Your task to perform on an android device: Check the news Image 0: 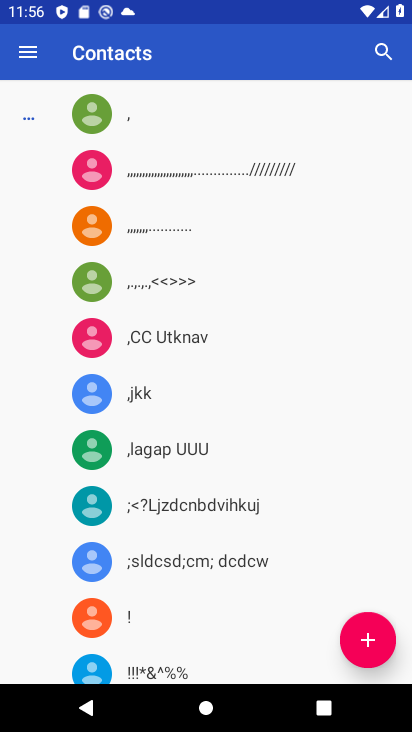
Step 0: press home button
Your task to perform on an android device: Check the news Image 1: 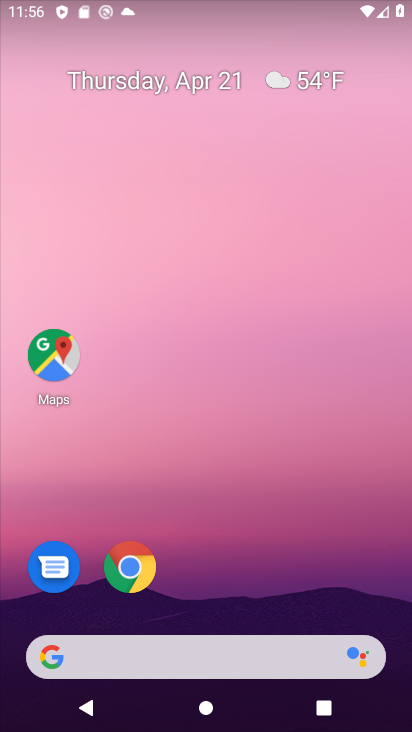
Step 1: drag from (257, 609) to (270, 153)
Your task to perform on an android device: Check the news Image 2: 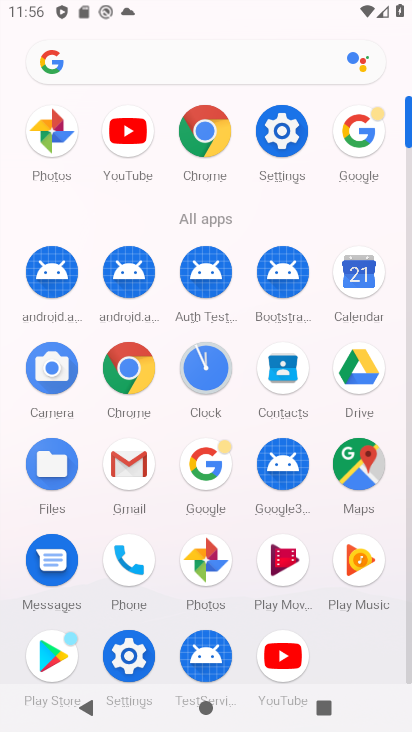
Step 2: click (201, 476)
Your task to perform on an android device: Check the news Image 3: 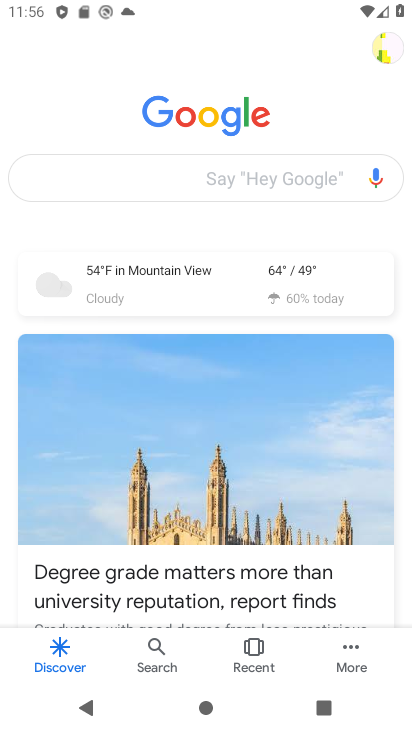
Step 3: click (264, 182)
Your task to perform on an android device: Check the news Image 4: 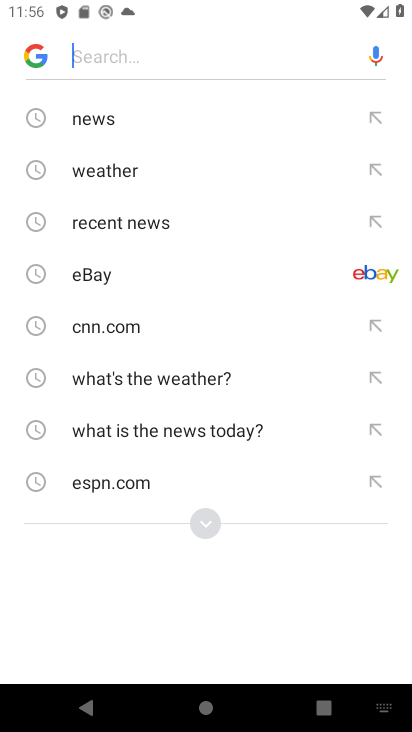
Step 4: click (196, 117)
Your task to perform on an android device: Check the news Image 5: 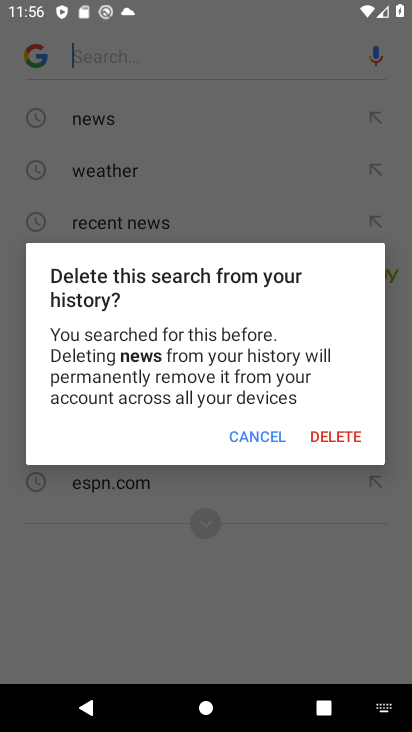
Step 5: click (249, 431)
Your task to perform on an android device: Check the news Image 6: 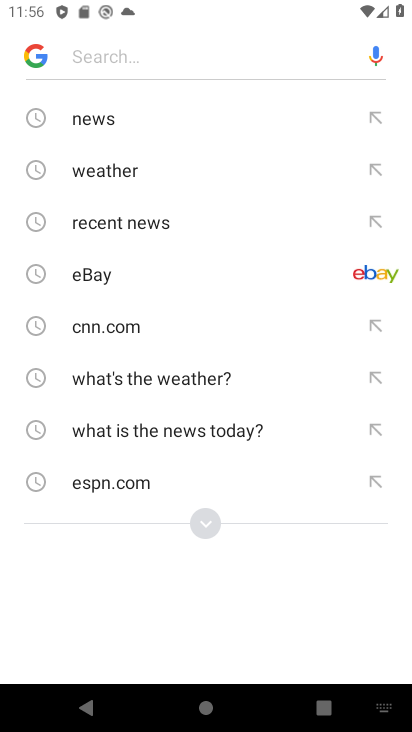
Step 6: click (237, 117)
Your task to perform on an android device: Check the news Image 7: 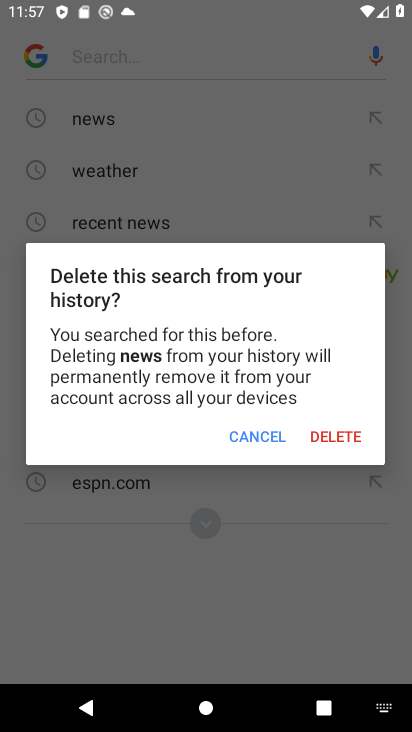
Step 7: click (273, 440)
Your task to perform on an android device: Check the news Image 8: 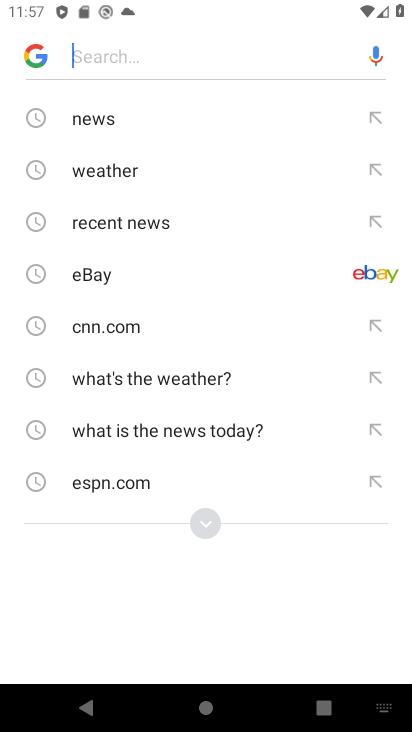
Step 8: click (383, 121)
Your task to perform on an android device: Check the news Image 9: 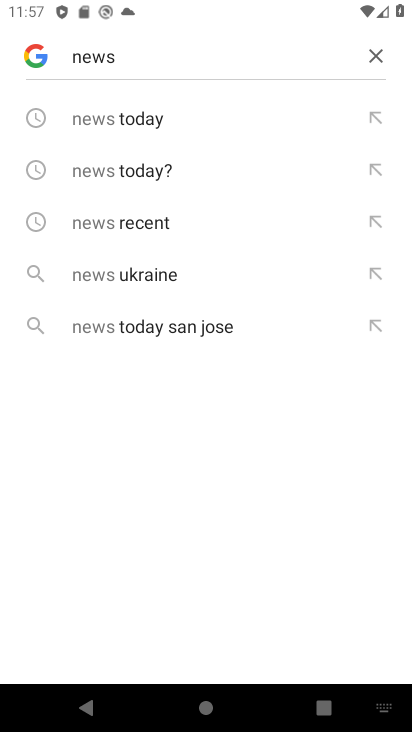
Step 9: click (188, 123)
Your task to perform on an android device: Check the news Image 10: 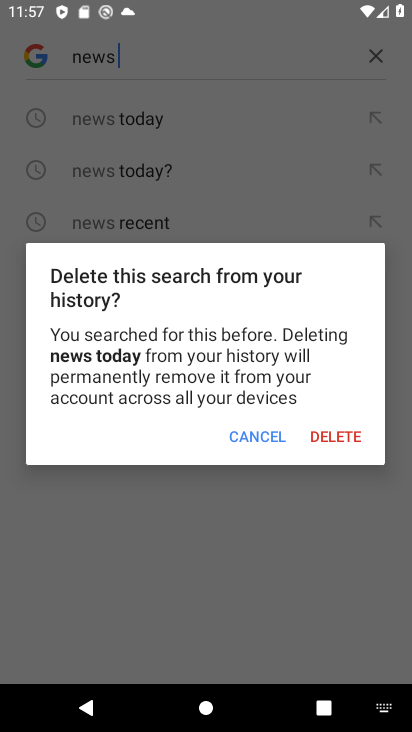
Step 10: click (267, 439)
Your task to perform on an android device: Check the news Image 11: 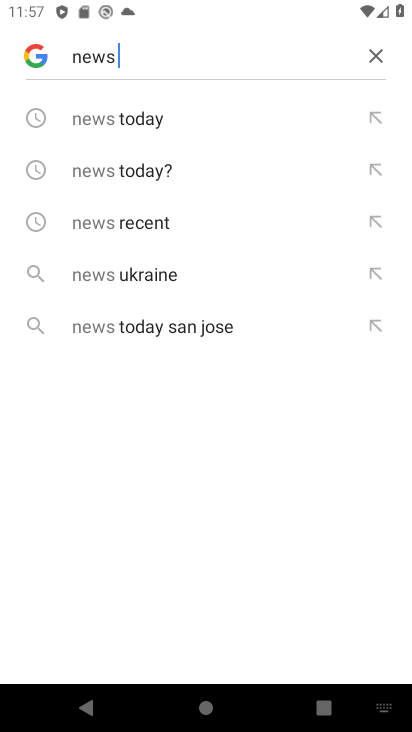
Step 11: click (373, 120)
Your task to perform on an android device: Check the news Image 12: 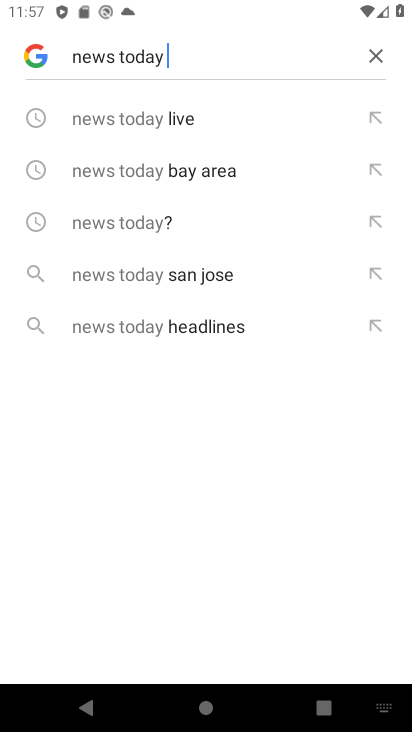
Step 12: click (222, 121)
Your task to perform on an android device: Check the news Image 13: 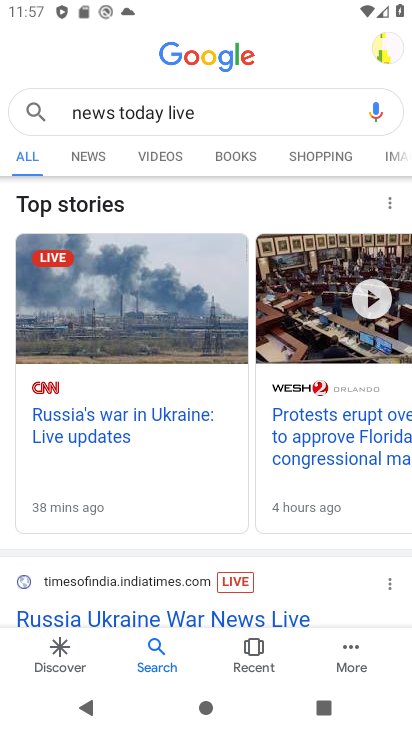
Step 13: click (101, 158)
Your task to perform on an android device: Check the news Image 14: 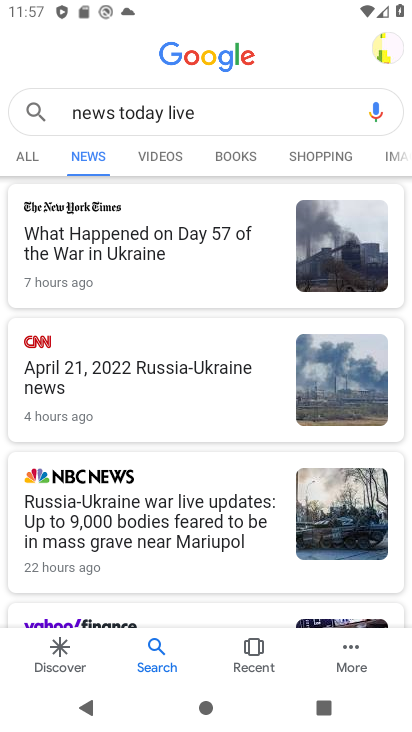
Step 14: task complete